Your task to perform on an android device: Toggle the flashlight Image 0: 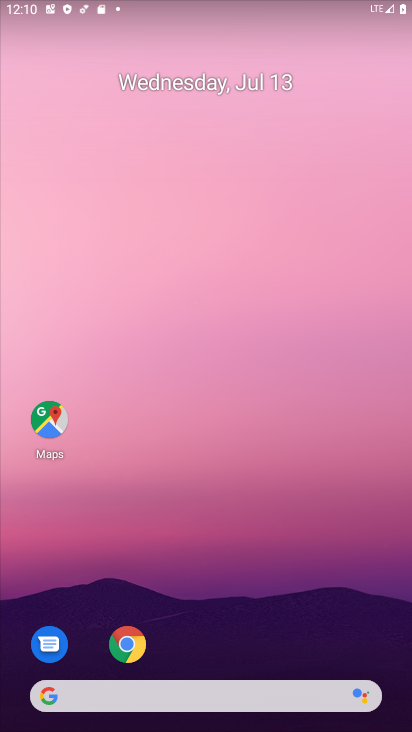
Step 0: drag from (197, 580) to (229, 60)
Your task to perform on an android device: Toggle the flashlight Image 1: 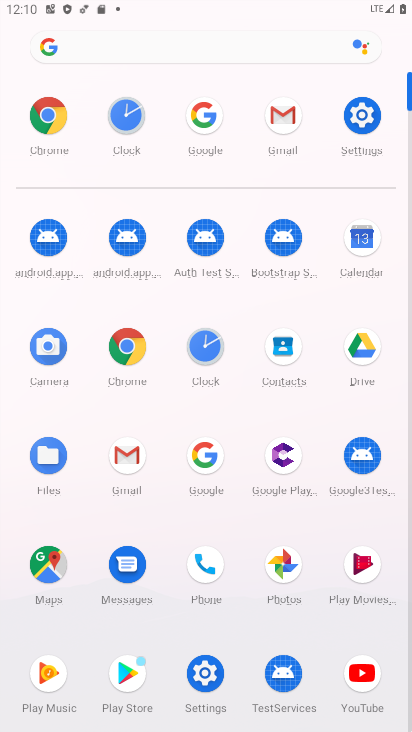
Step 1: click (363, 118)
Your task to perform on an android device: Toggle the flashlight Image 2: 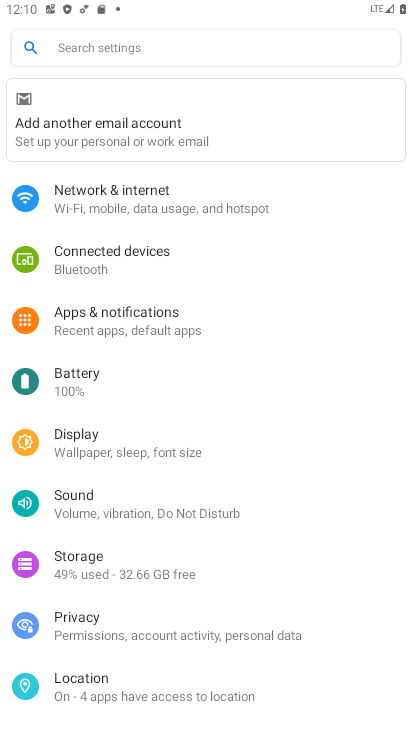
Step 2: click (187, 53)
Your task to perform on an android device: Toggle the flashlight Image 3: 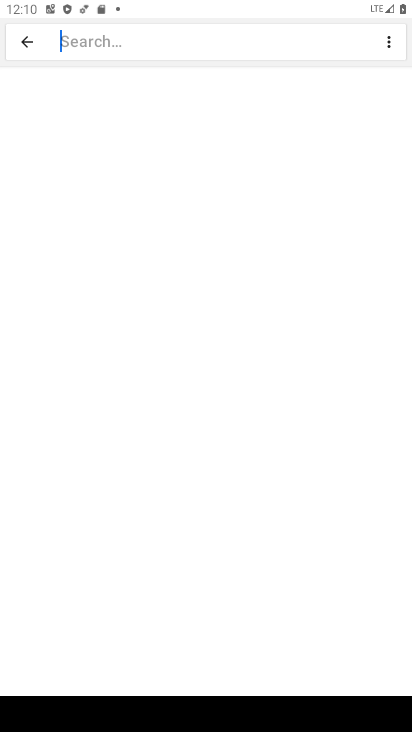
Step 3: type "flashlight"
Your task to perform on an android device: Toggle the flashlight Image 4: 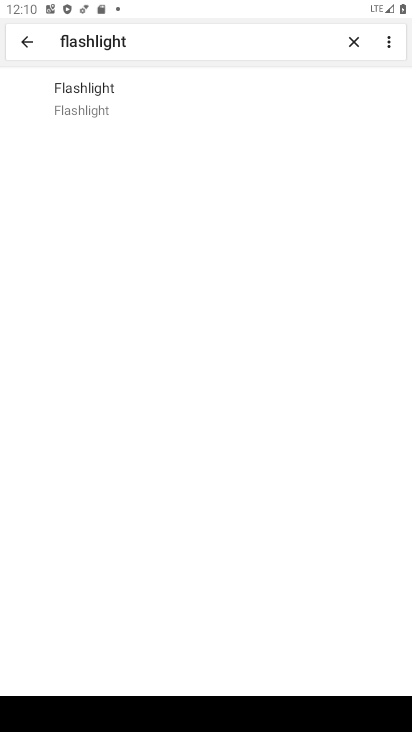
Step 4: task complete